Your task to perform on an android device: Open the stopwatch Image 0: 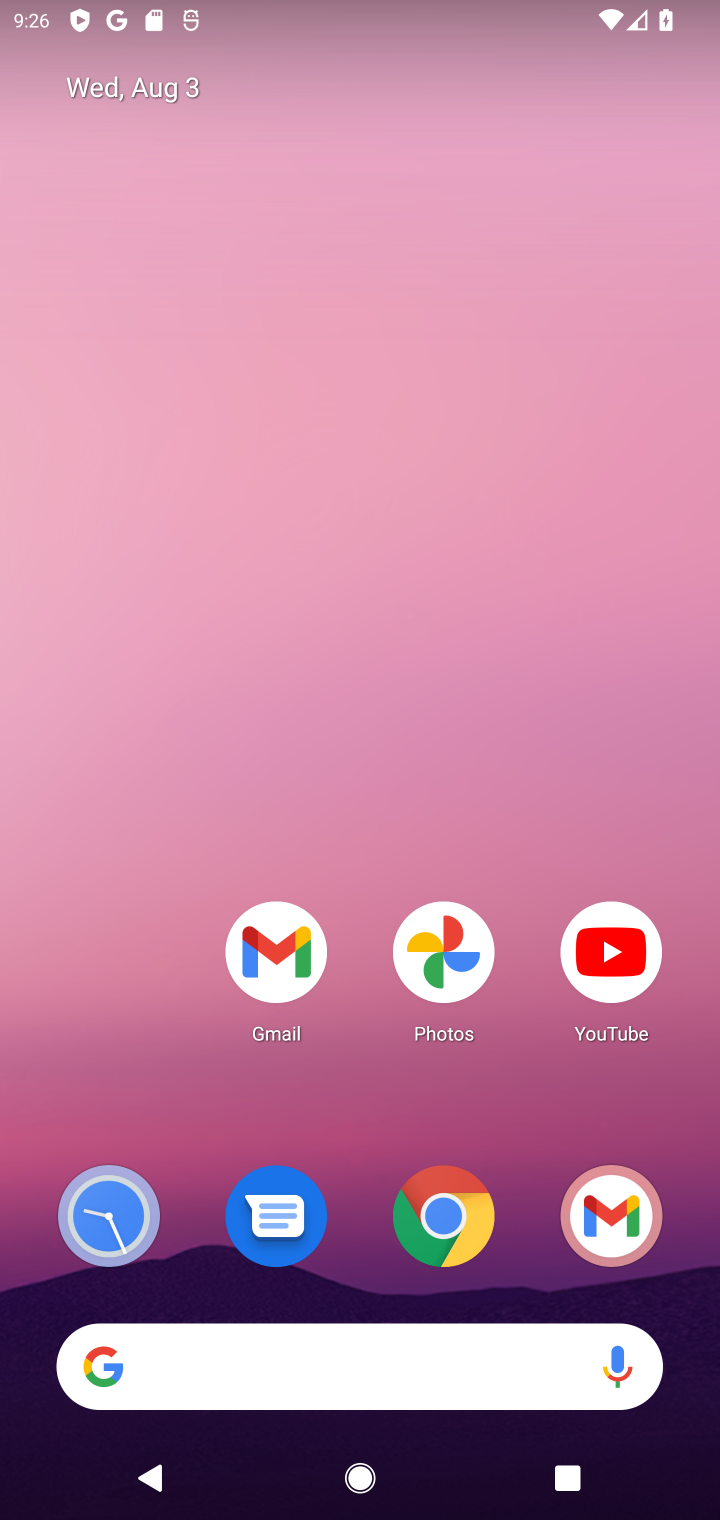
Step 0: click (160, 1208)
Your task to perform on an android device: Open the stopwatch Image 1: 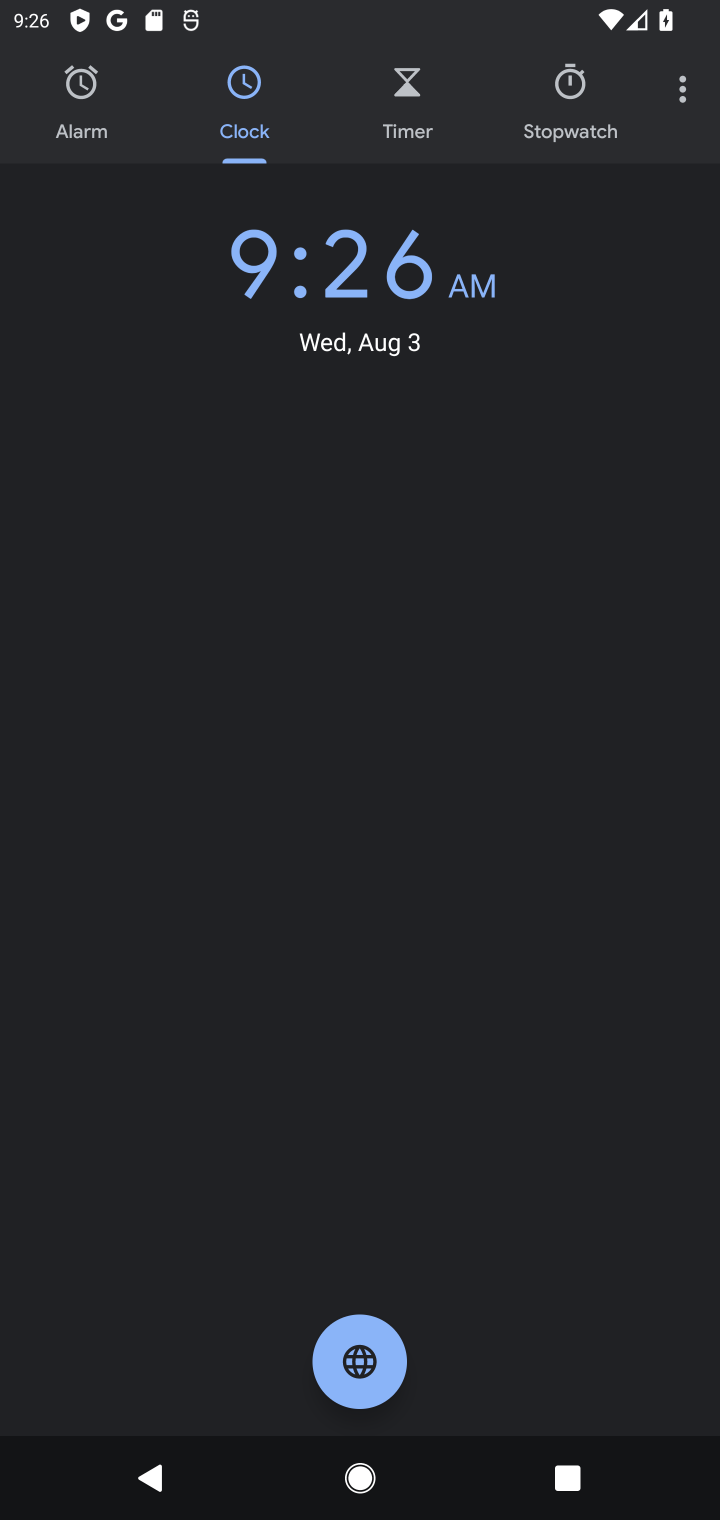
Step 1: click (571, 112)
Your task to perform on an android device: Open the stopwatch Image 2: 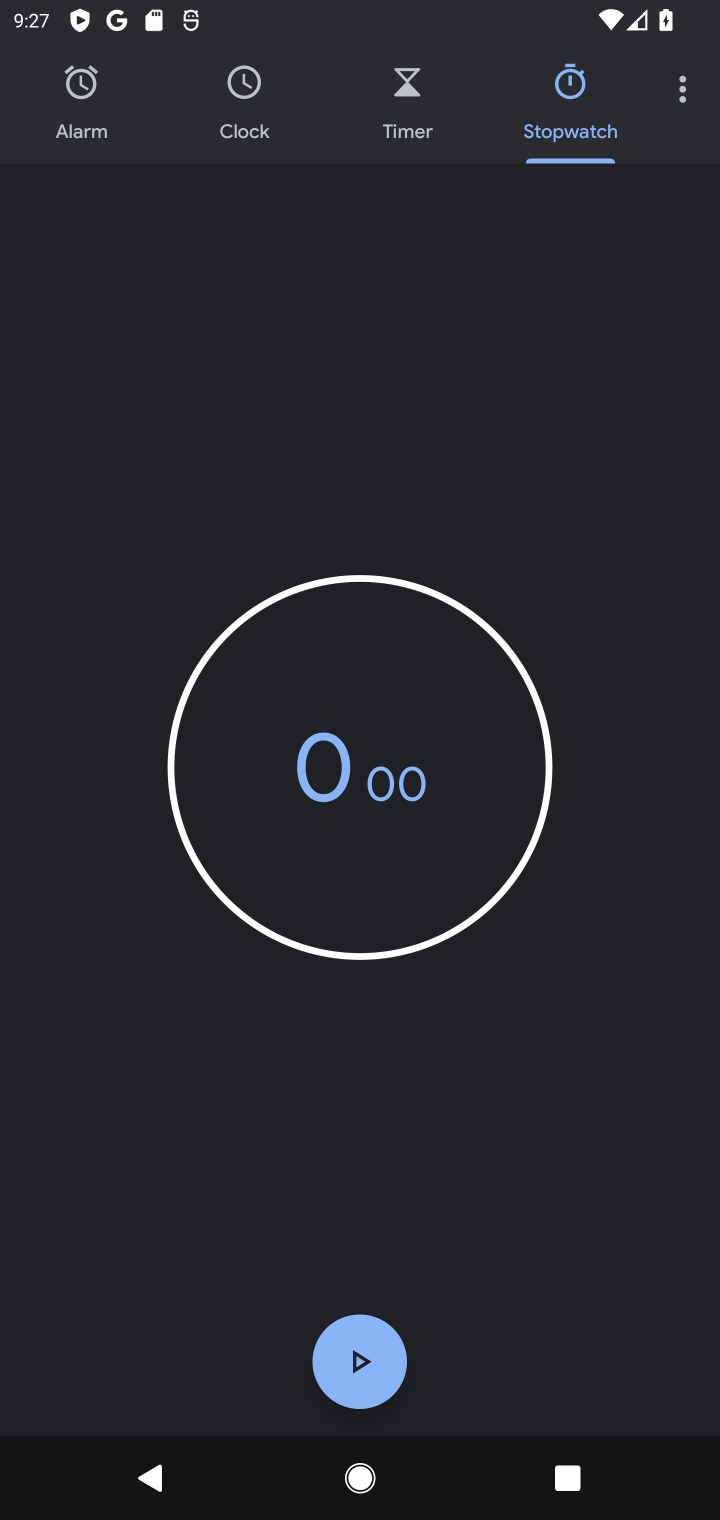
Step 2: task complete